Your task to perform on an android device: What is the news today? Image 0: 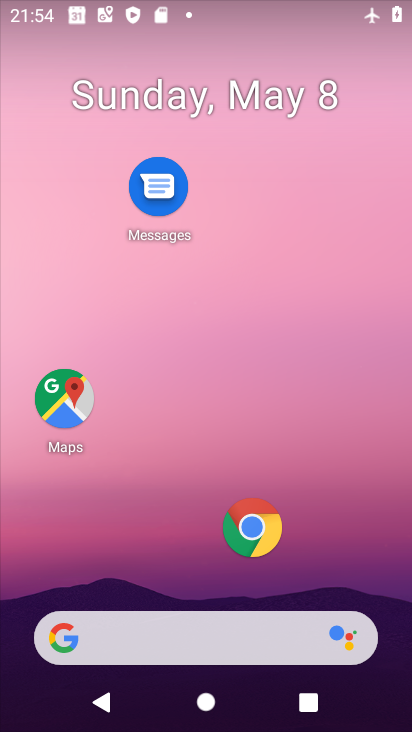
Step 0: drag from (181, 552) to (178, 84)
Your task to perform on an android device: What is the news today? Image 1: 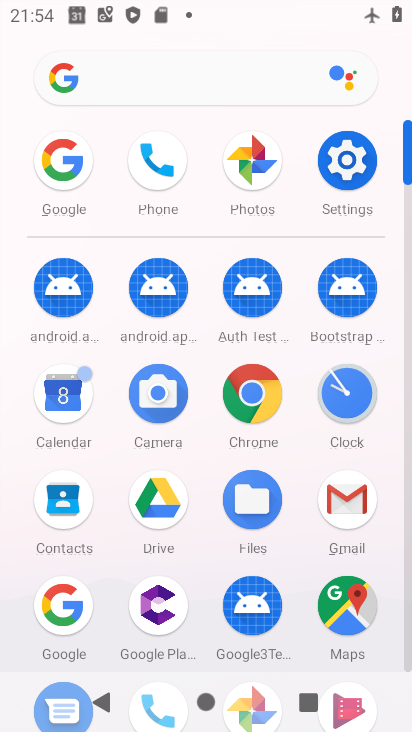
Step 1: click (75, 160)
Your task to perform on an android device: What is the news today? Image 2: 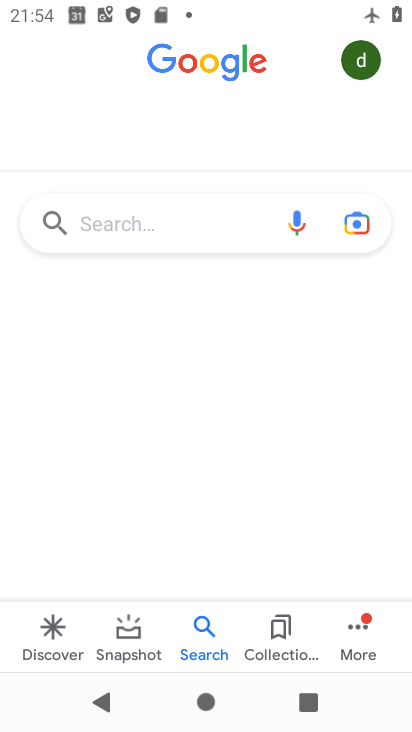
Step 2: click (163, 224)
Your task to perform on an android device: What is the news today? Image 3: 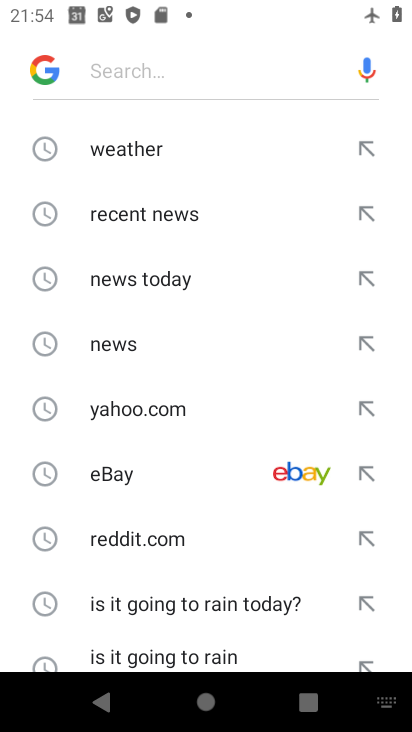
Step 3: click (152, 273)
Your task to perform on an android device: What is the news today? Image 4: 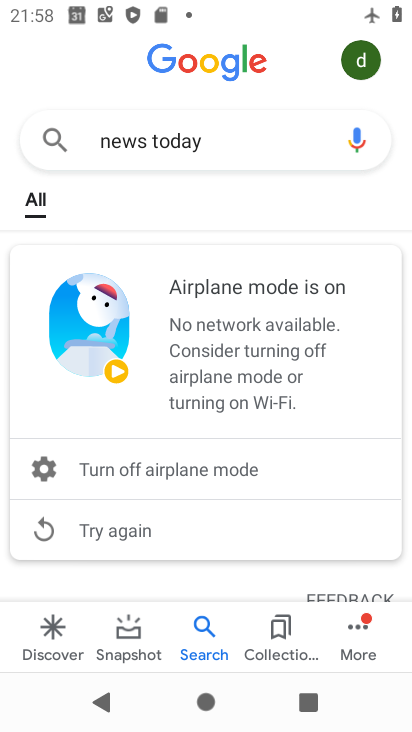
Step 4: task complete